Your task to perform on an android device: Go to internet settings Image 0: 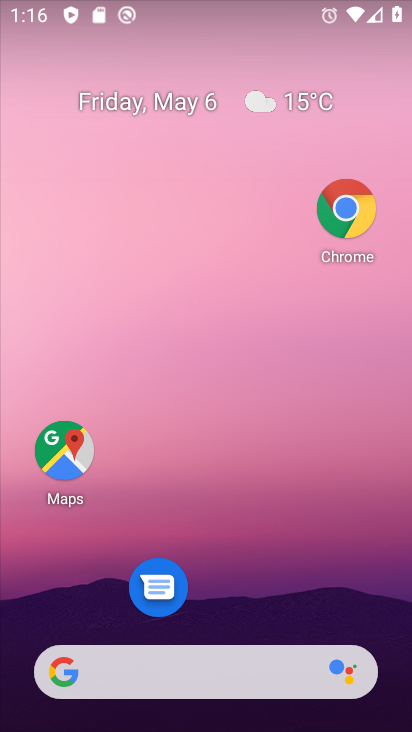
Step 0: drag from (267, 429) to (285, 229)
Your task to perform on an android device: Go to internet settings Image 1: 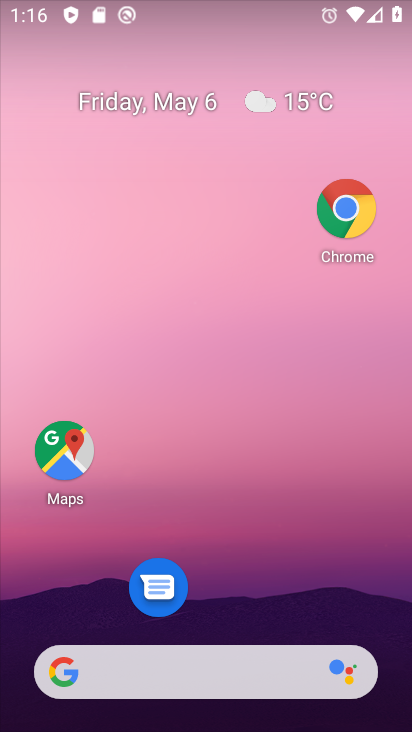
Step 1: drag from (235, 452) to (253, 162)
Your task to perform on an android device: Go to internet settings Image 2: 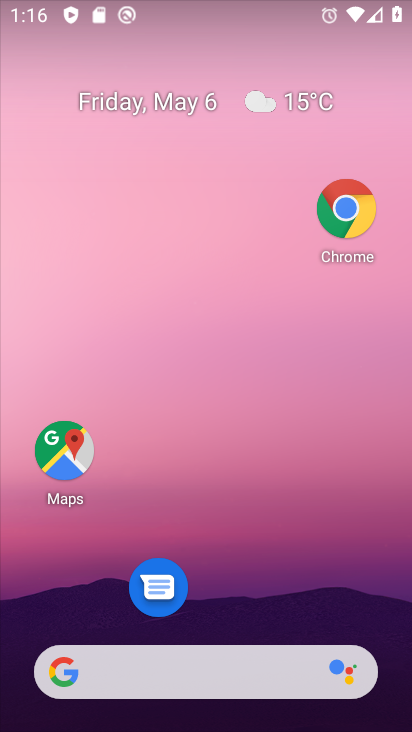
Step 2: drag from (233, 526) to (129, 5)
Your task to perform on an android device: Go to internet settings Image 3: 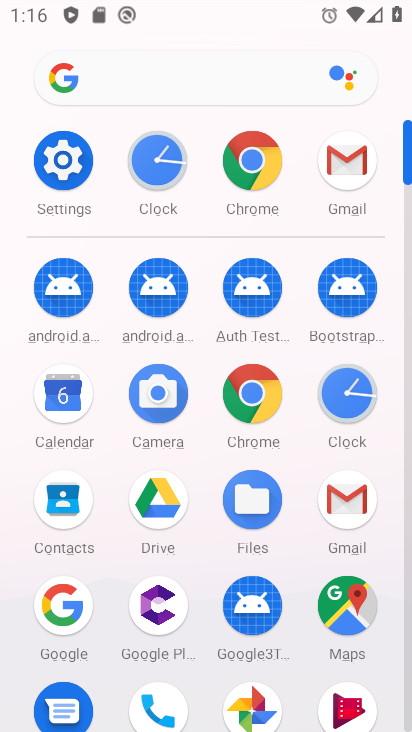
Step 3: click (59, 246)
Your task to perform on an android device: Go to internet settings Image 4: 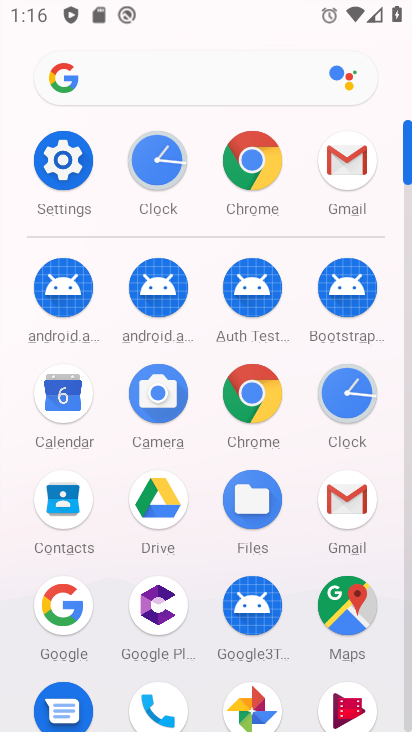
Step 4: click (43, 176)
Your task to perform on an android device: Go to internet settings Image 5: 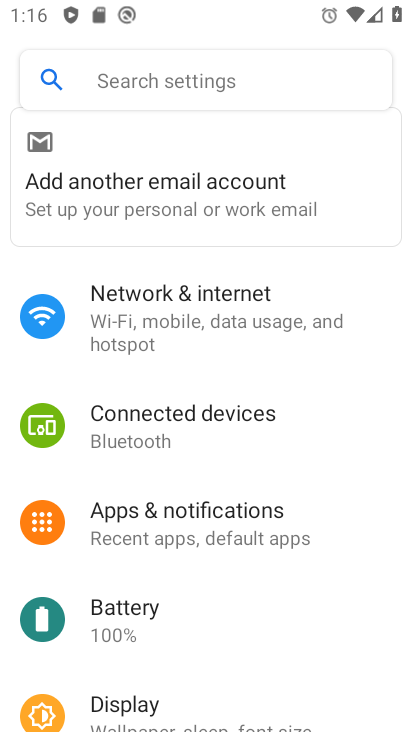
Step 5: click (139, 321)
Your task to perform on an android device: Go to internet settings Image 6: 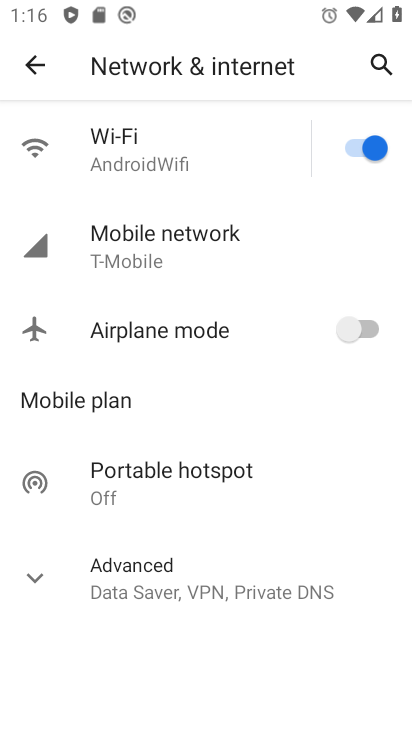
Step 6: task complete